Your task to perform on an android device: Search for pizza restaurants on Maps Image 0: 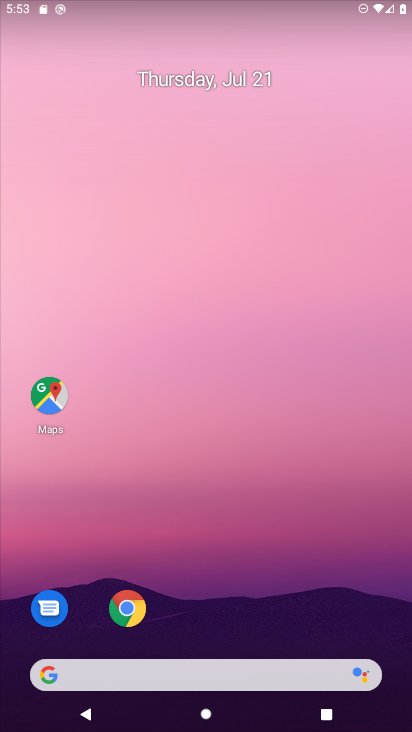
Step 0: click (47, 395)
Your task to perform on an android device: Search for pizza restaurants on Maps Image 1: 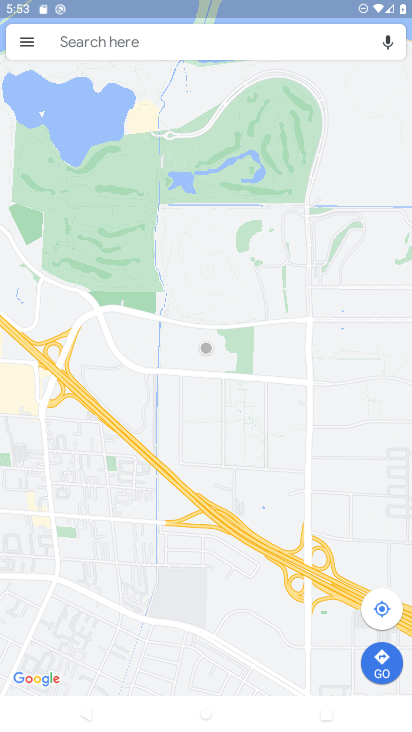
Step 1: click (155, 40)
Your task to perform on an android device: Search for pizza restaurants on Maps Image 2: 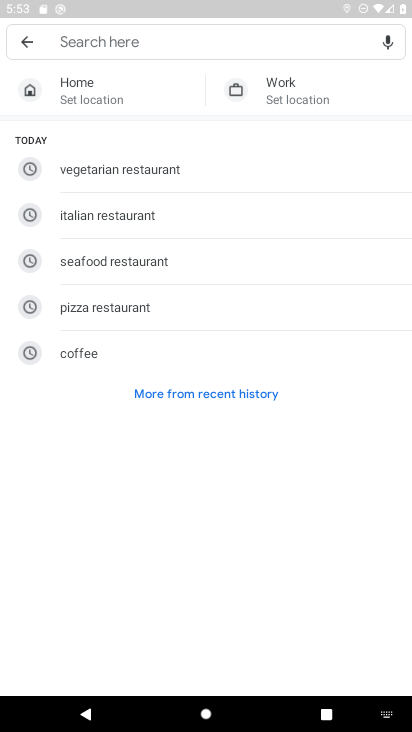
Step 2: type "pizza restaurants"
Your task to perform on an android device: Search for pizza restaurants on Maps Image 3: 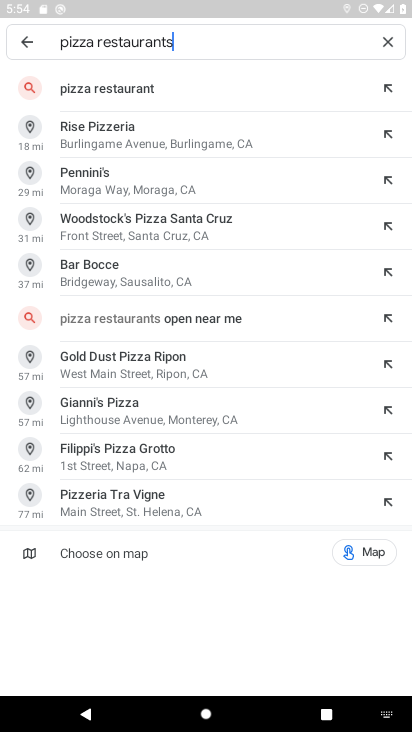
Step 3: click (122, 90)
Your task to perform on an android device: Search for pizza restaurants on Maps Image 4: 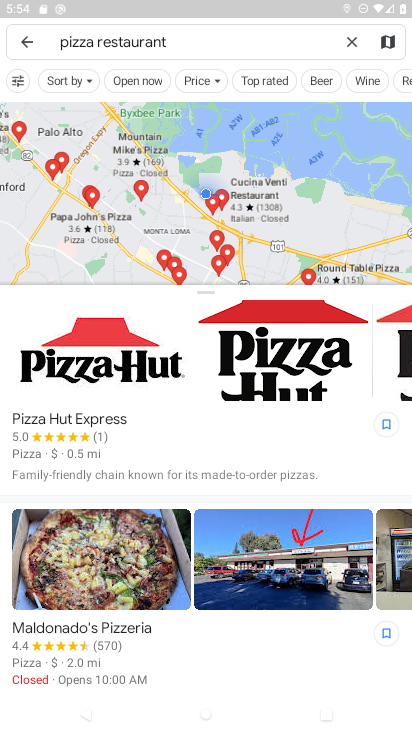
Step 4: task complete